Your task to perform on an android device: Go to ESPN.com Image 0: 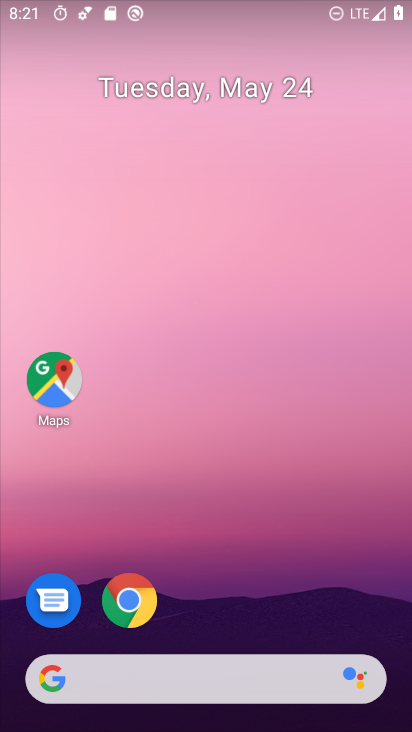
Step 0: click (123, 615)
Your task to perform on an android device: Go to ESPN.com Image 1: 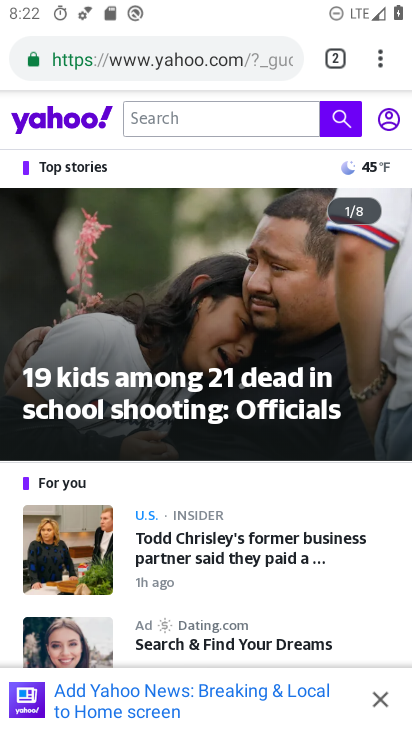
Step 1: click (337, 60)
Your task to perform on an android device: Go to ESPN.com Image 2: 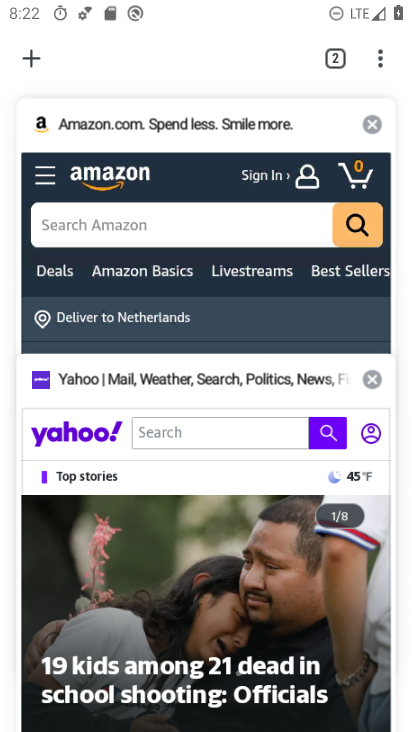
Step 2: click (29, 52)
Your task to perform on an android device: Go to ESPN.com Image 3: 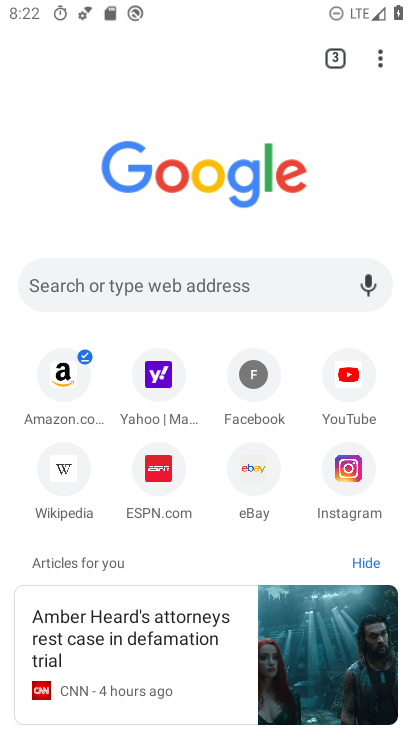
Step 3: click (158, 471)
Your task to perform on an android device: Go to ESPN.com Image 4: 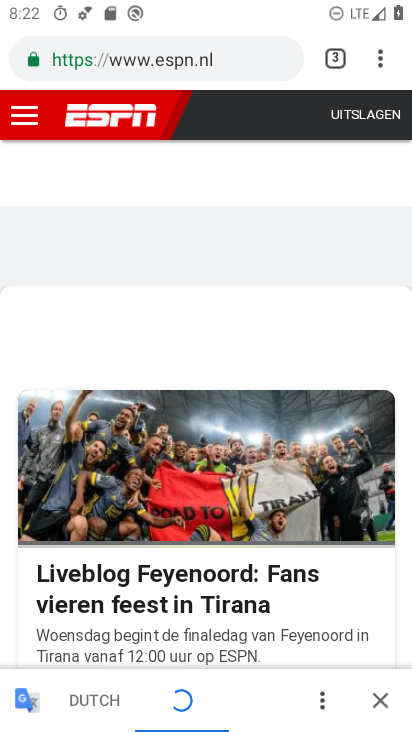
Step 4: task complete